Your task to perform on an android device: Open wifi settings Image 0: 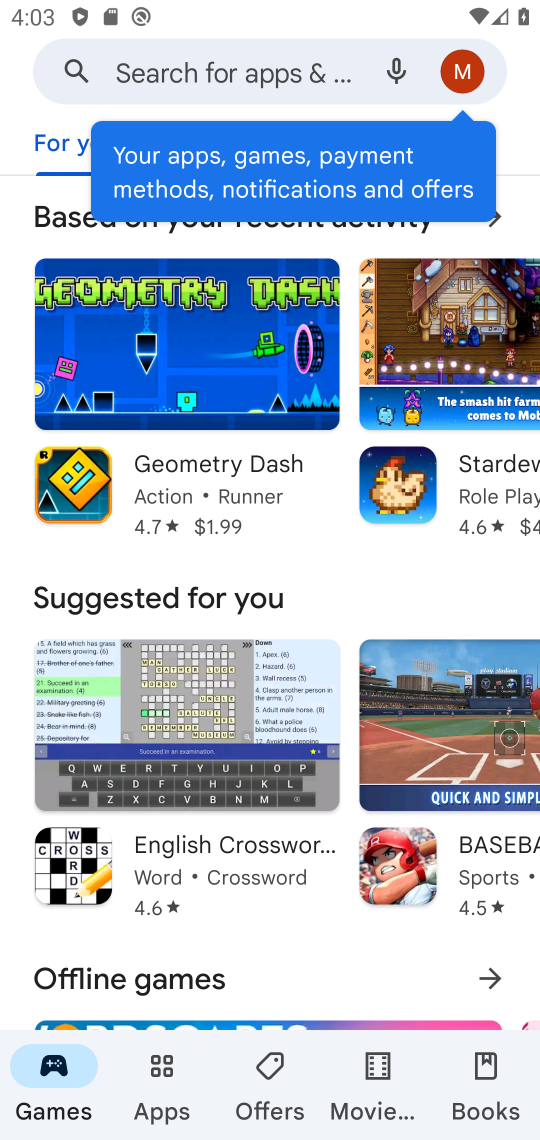
Step 0: press home button
Your task to perform on an android device: Open wifi settings Image 1: 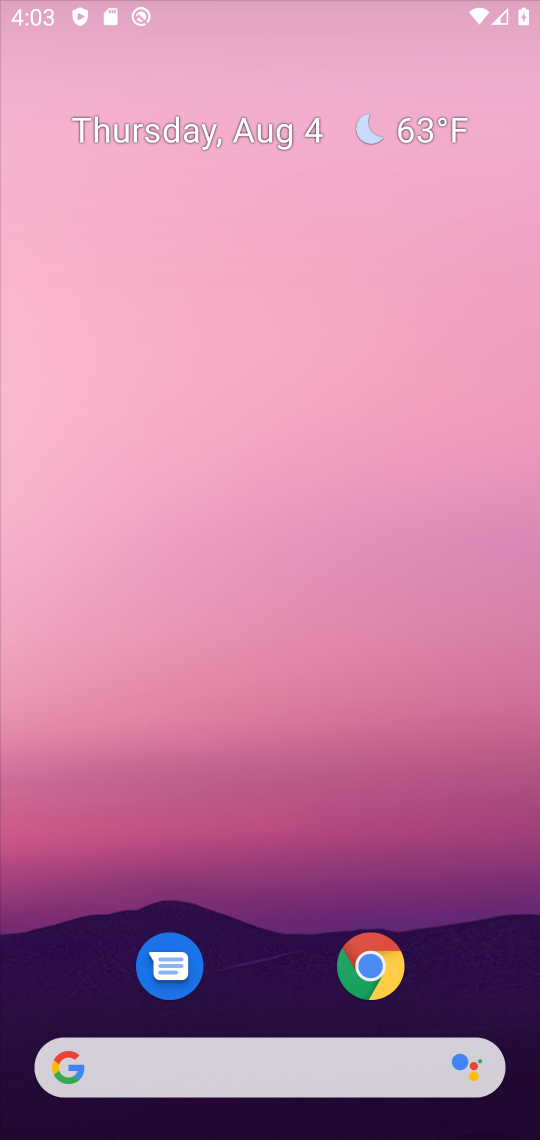
Step 1: drag from (257, 989) to (212, 0)
Your task to perform on an android device: Open wifi settings Image 2: 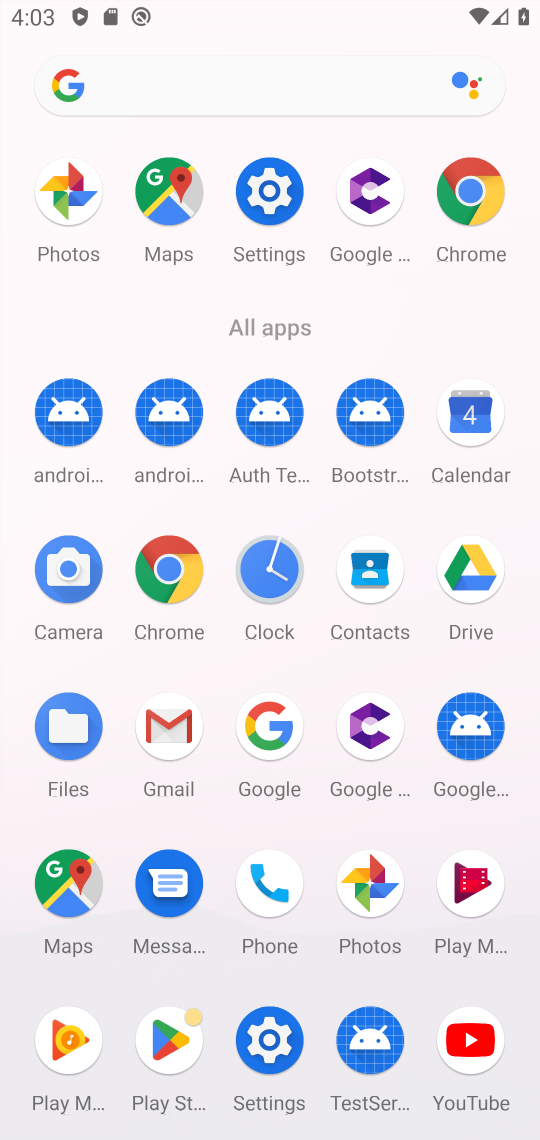
Step 2: click (264, 184)
Your task to perform on an android device: Open wifi settings Image 3: 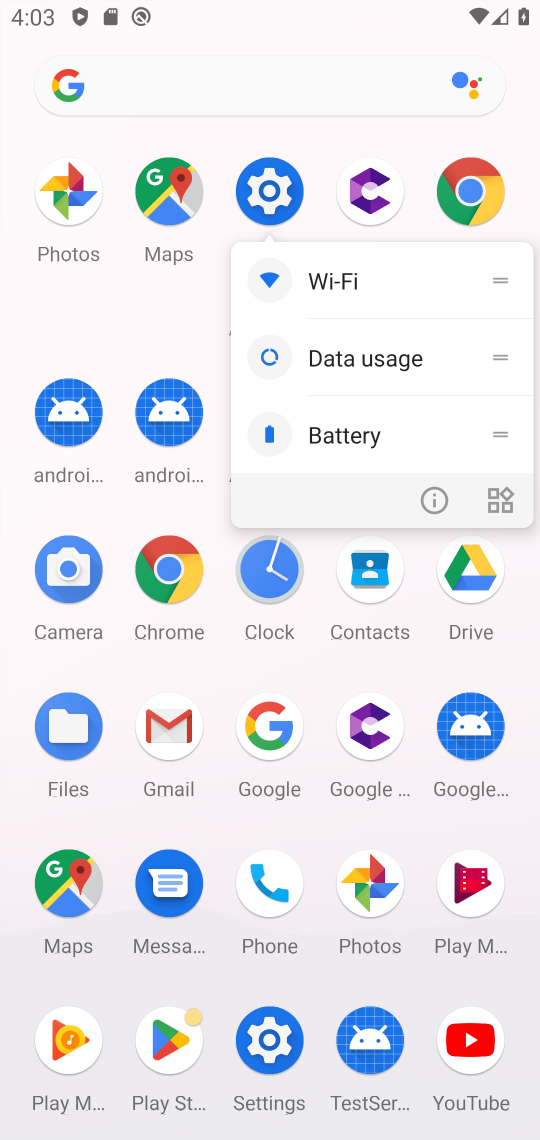
Step 3: click (268, 184)
Your task to perform on an android device: Open wifi settings Image 4: 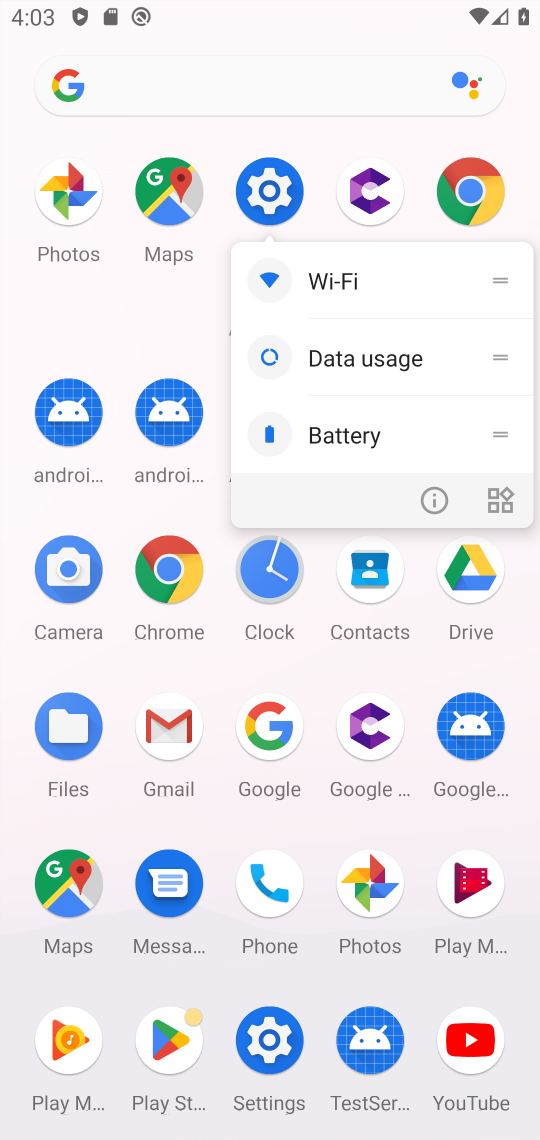
Step 4: click (276, 194)
Your task to perform on an android device: Open wifi settings Image 5: 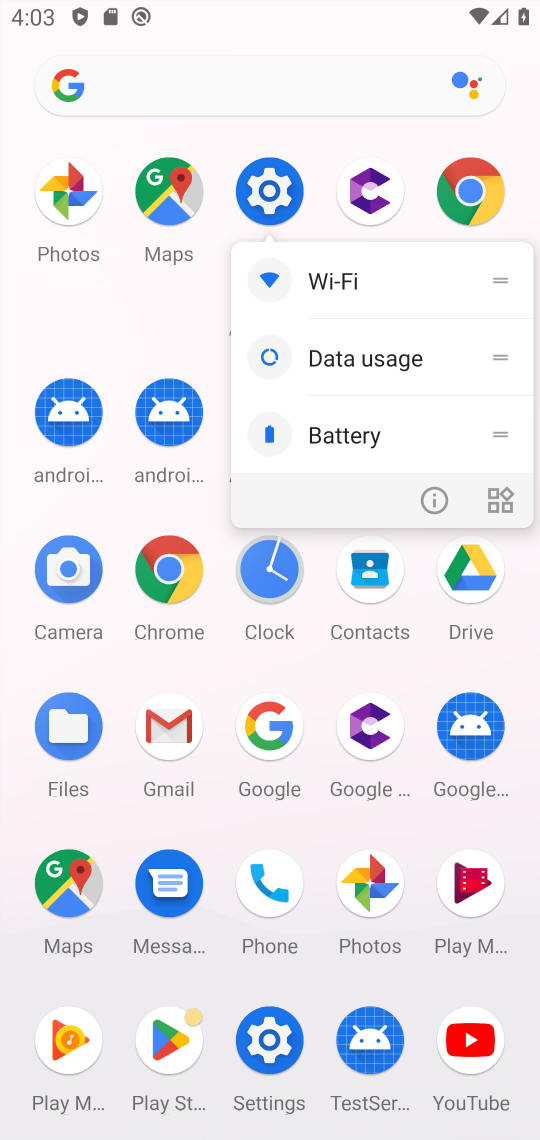
Step 5: click (277, 191)
Your task to perform on an android device: Open wifi settings Image 6: 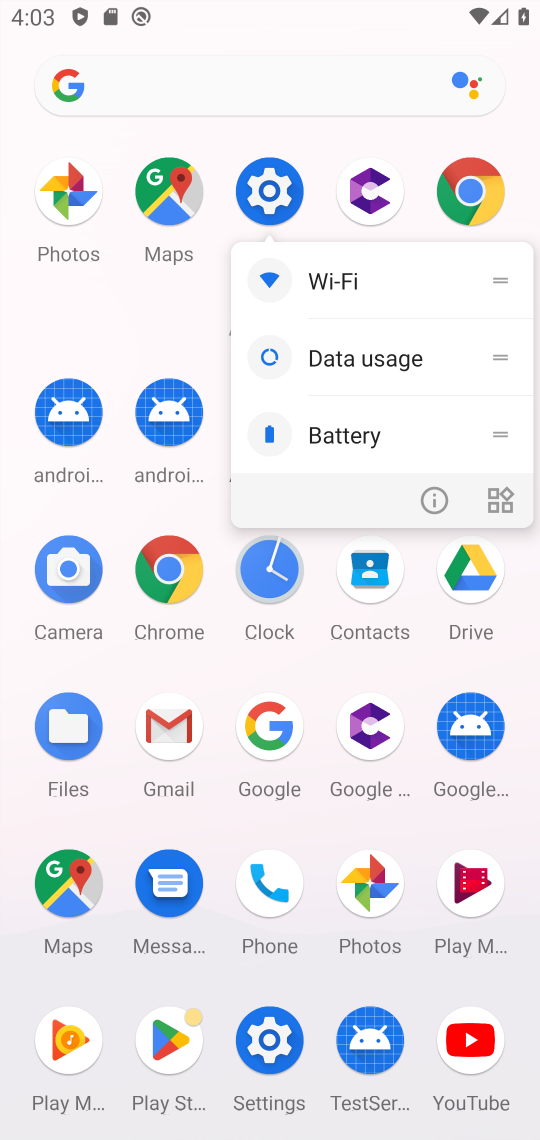
Step 6: click (280, 190)
Your task to perform on an android device: Open wifi settings Image 7: 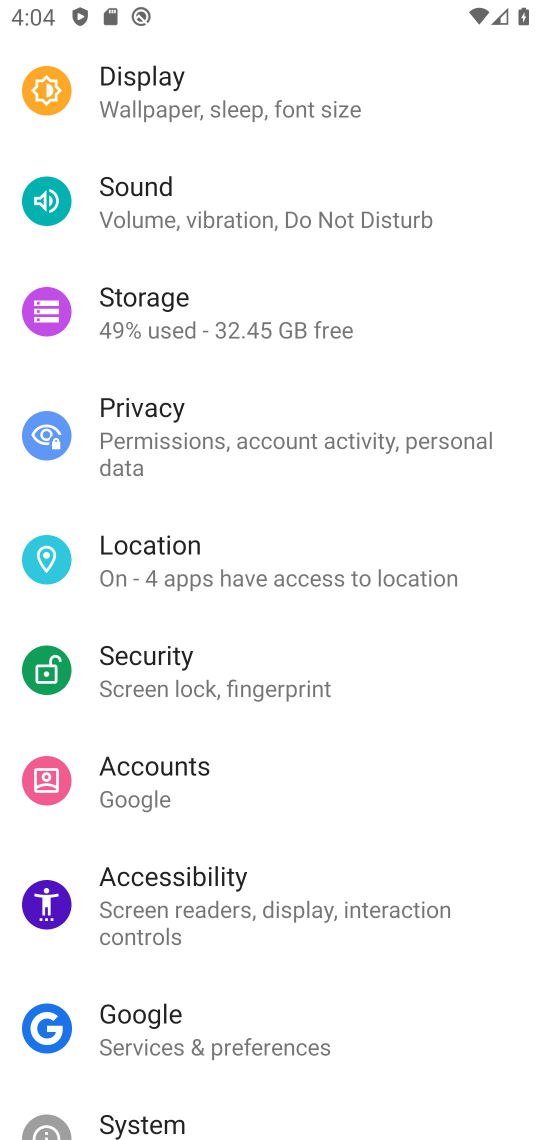
Step 7: task complete